Your task to perform on an android device: What's the news in Vietnam? Image 0: 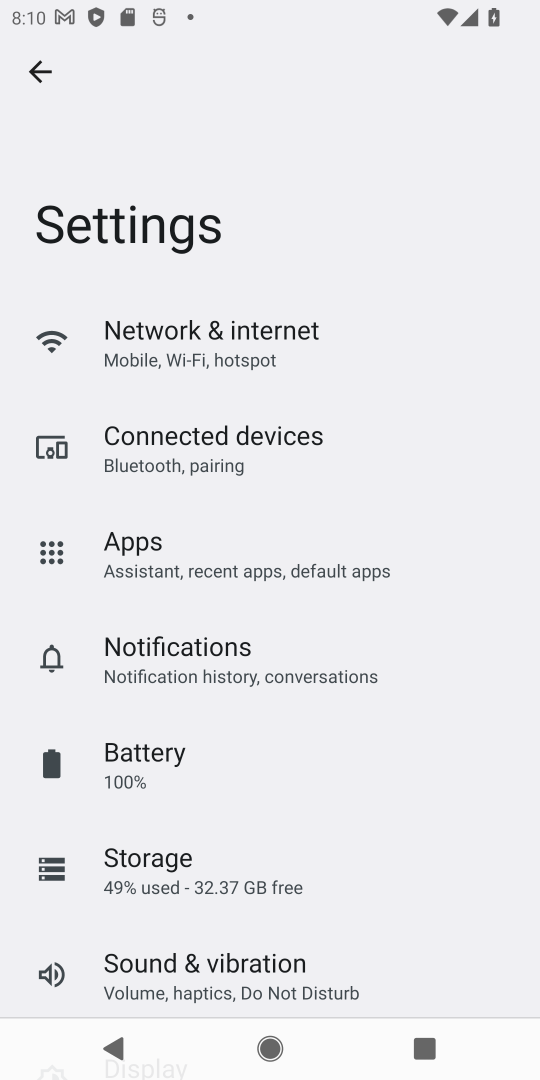
Step 0: press home button
Your task to perform on an android device: What's the news in Vietnam? Image 1: 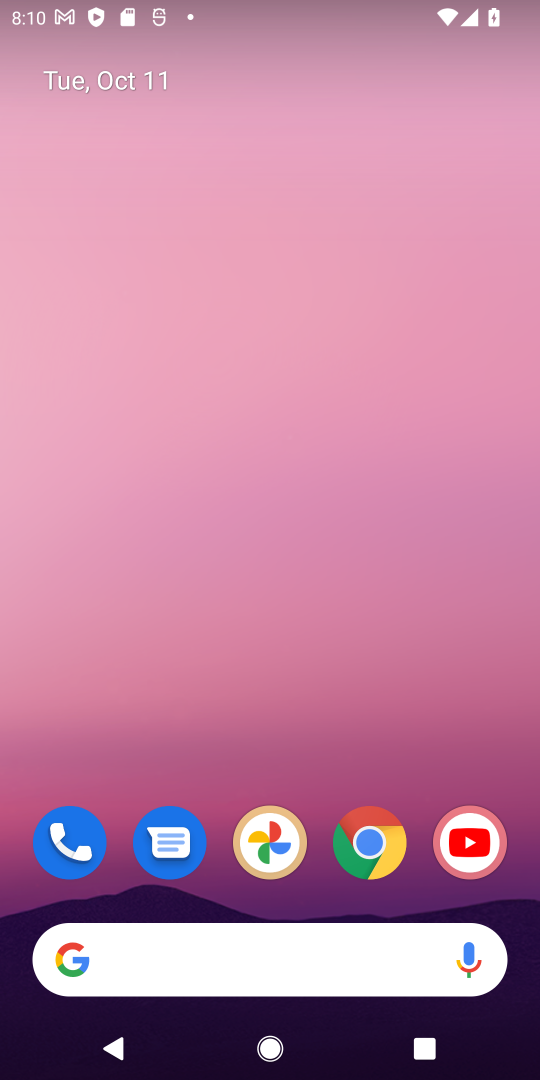
Step 1: click (375, 836)
Your task to perform on an android device: What's the news in Vietnam? Image 2: 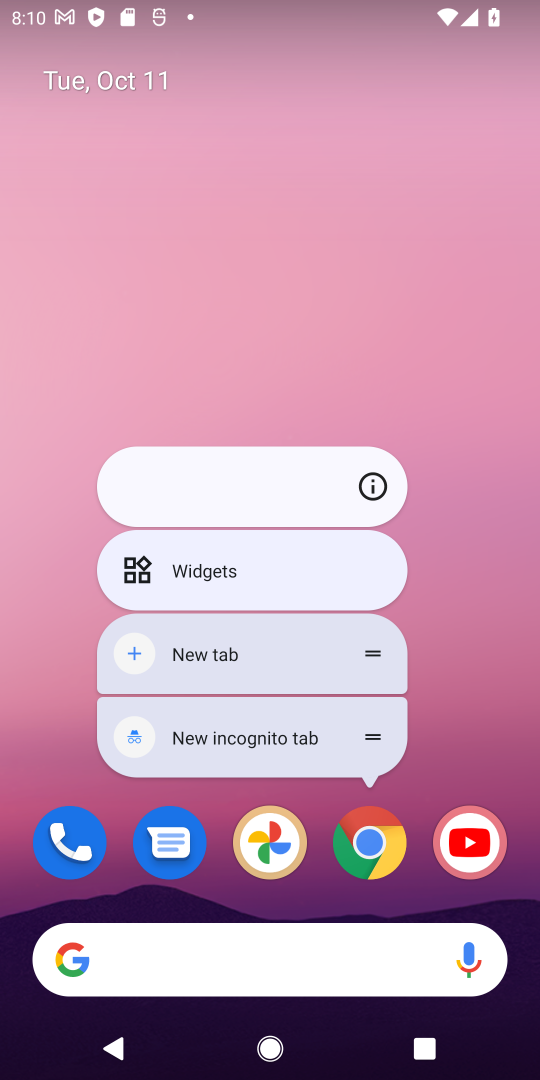
Step 2: click (376, 851)
Your task to perform on an android device: What's the news in Vietnam? Image 3: 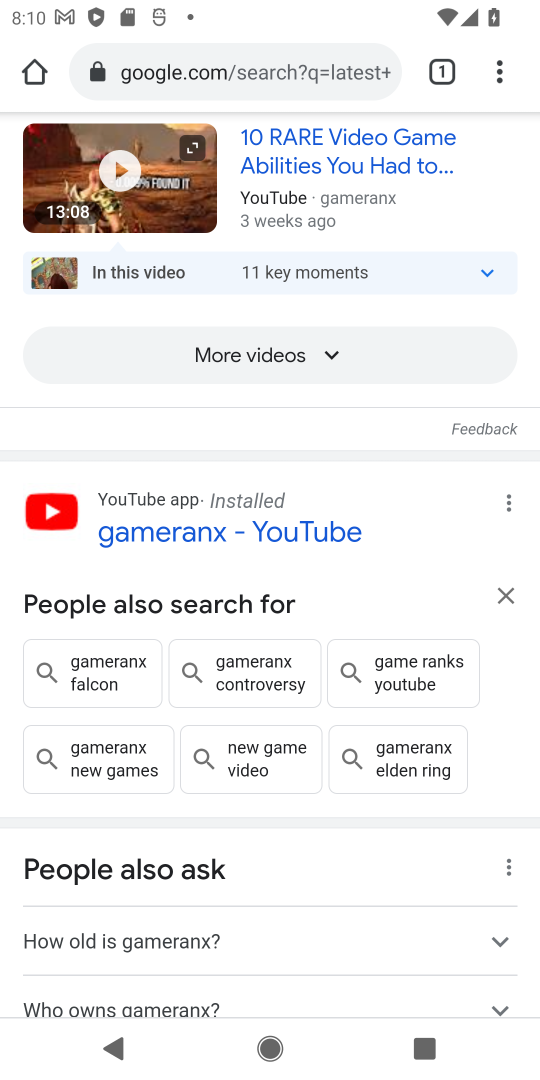
Step 3: click (225, 71)
Your task to perform on an android device: What's the news in Vietnam? Image 4: 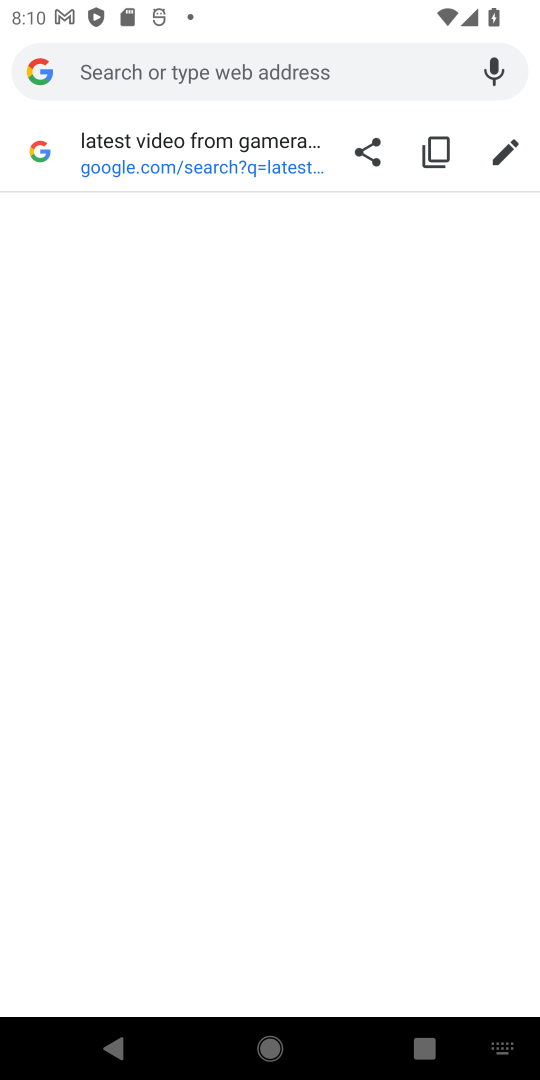
Step 4: type "news in vietnam"
Your task to perform on an android device: What's the news in Vietnam? Image 5: 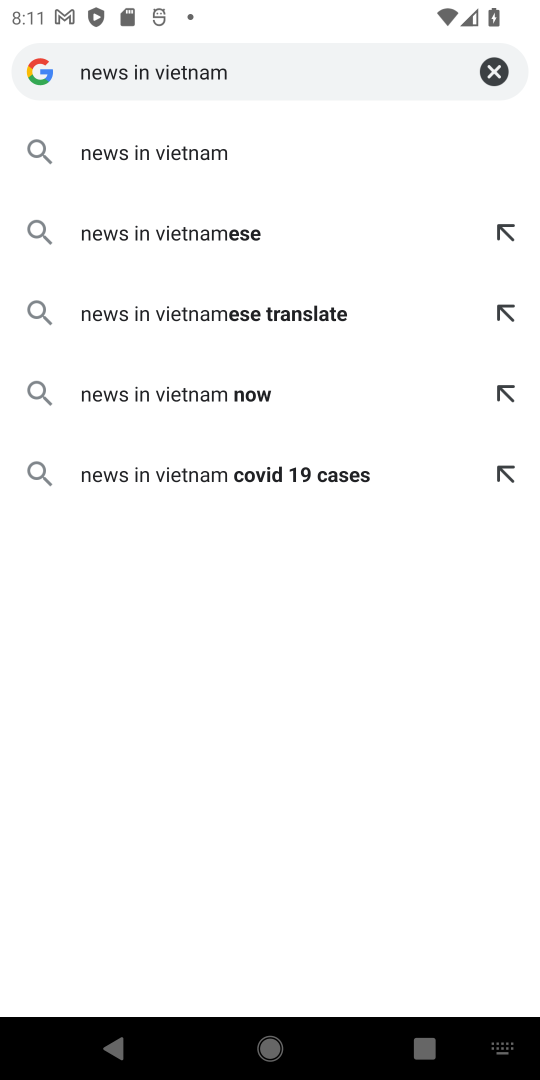
Step 5: click (177, 149)
Your task to perform on an android device: What's the news in Vietnam? Image 6: 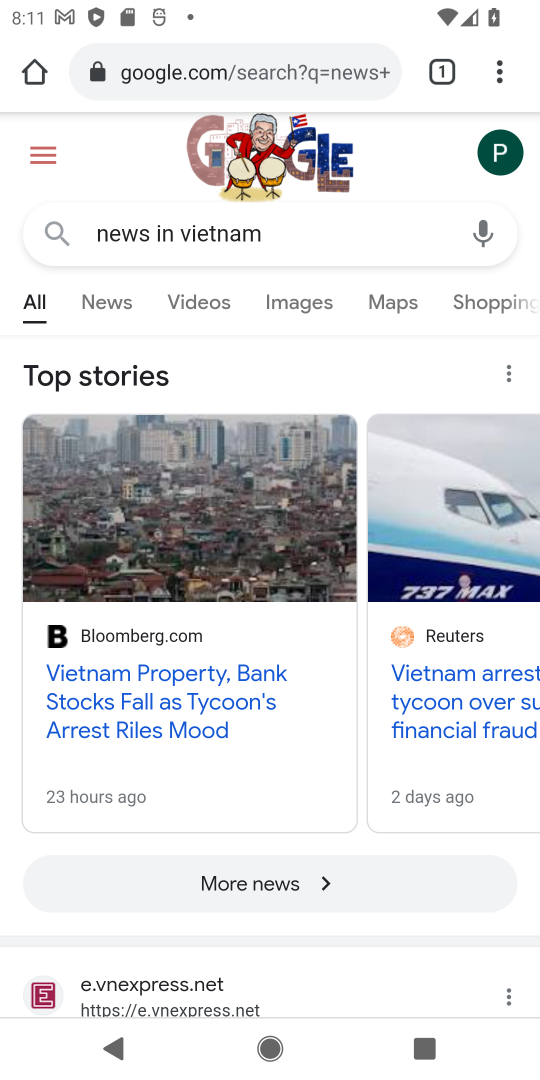
Step 6: task complete